Your task to perform on an android device: turn smart compose on in the gmail app Image 0: 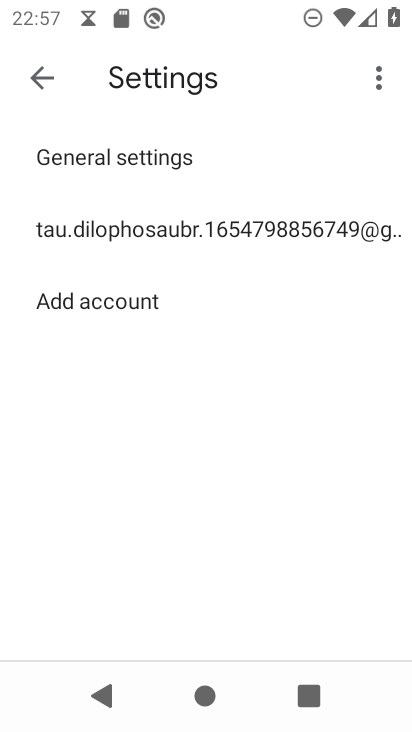
Step 0: press home button
Your task to perform on an android device: turn smart compose on in the gmail app Image 1: 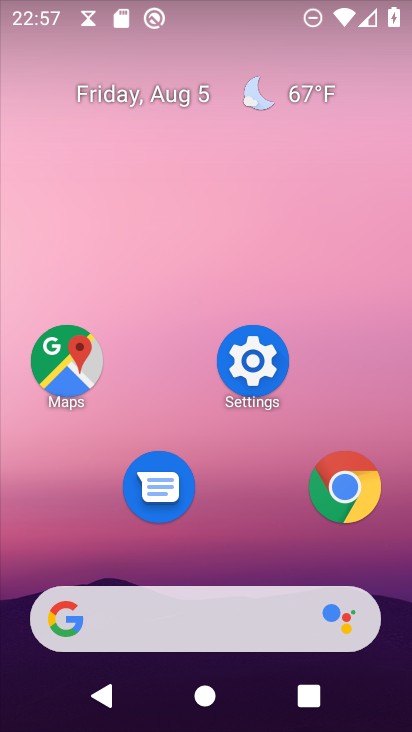
Step 1: drag from (251, 580) to (320, 133)
Your task to perform on an android device: turn smart compose on in the gmail app Image 2: 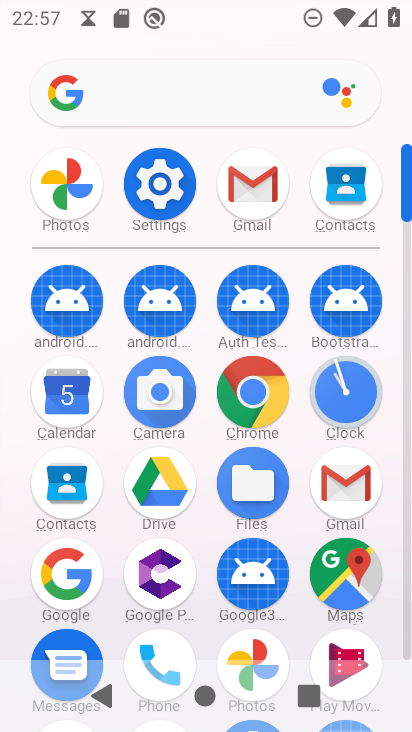
Step 2: click (242, 192)
Your task to perform on an android device: turn smart compose on in the gmail app Image 3: 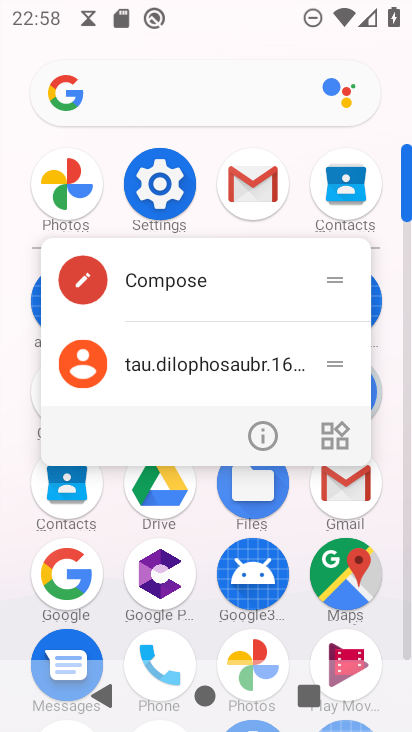
Step 3: click (250, 192)
Your task to perform on an android device: turn smart compose on in the gmail app Image 4: 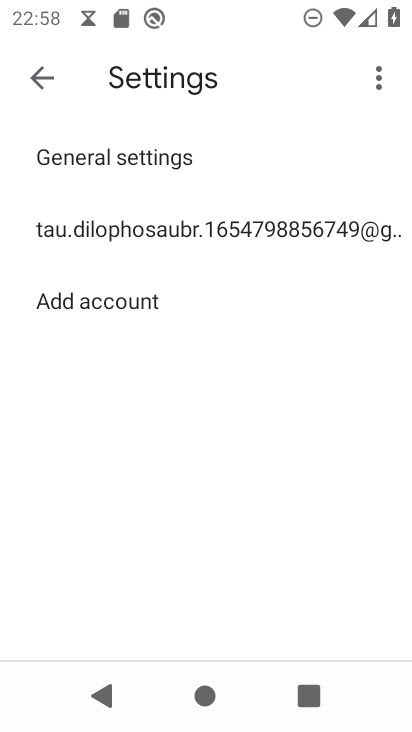
Step 4: click (230, 215)
Your task to perform on an android device: turn smart compose on in the gmail app Image 5: 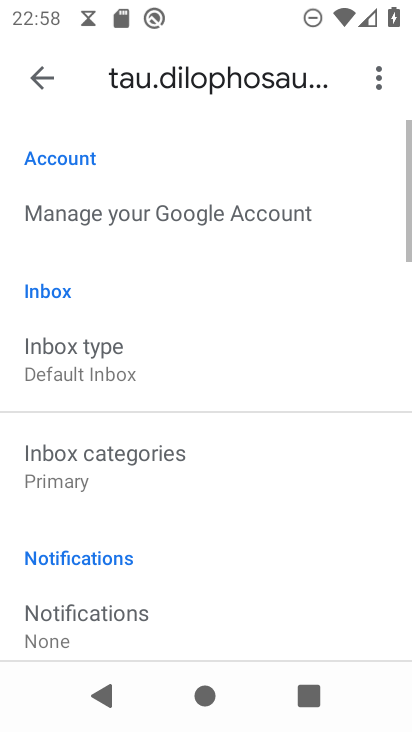
Step 5: task complete